Your task to perform on an android device: add a contact in the contacts app Image 0: 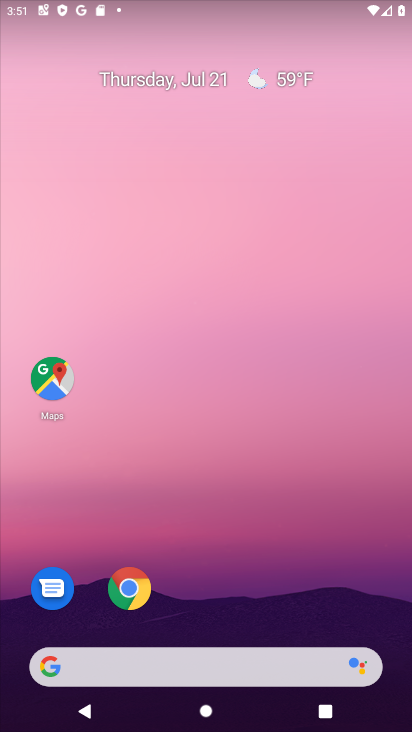
Step 0: drag from (238, 724) to (238, 256)
Your task to perform on an android device: add a contact in the contacts app Image 1: 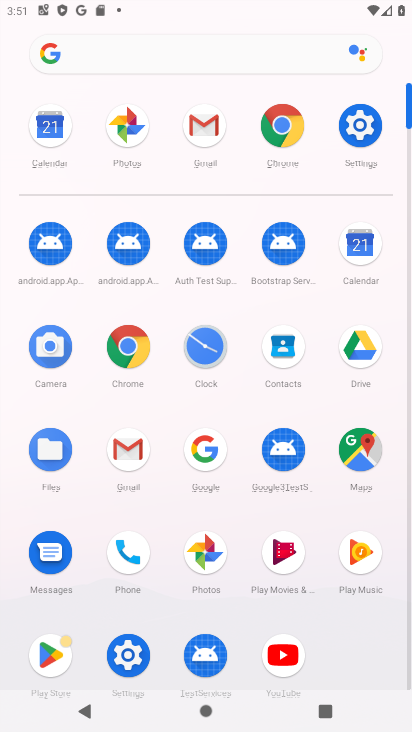
Step 1: click (285, 351)
Your task to perform on an android device: add a contact in the contacts app Image 2: 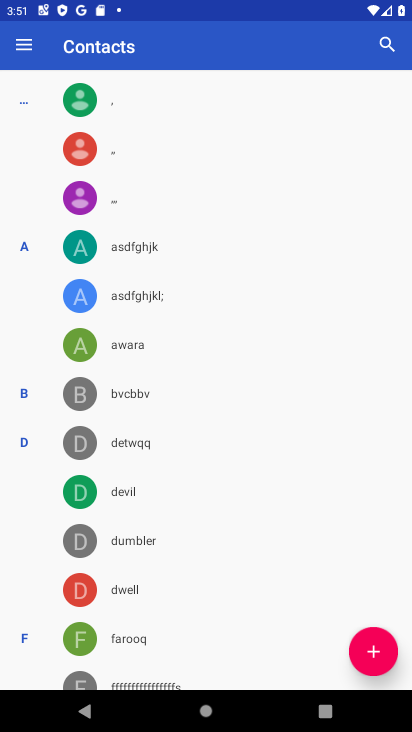
Step 2: click (368, 652)
Your task to perform on an android device: add a contact in the contacts app Image 3: 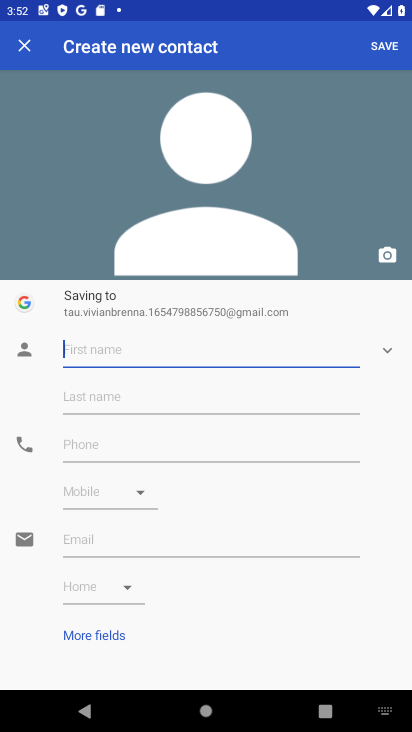
Step 3: type "police"
Your task to perform on an android device: add a contact in the contacts app Image 4: 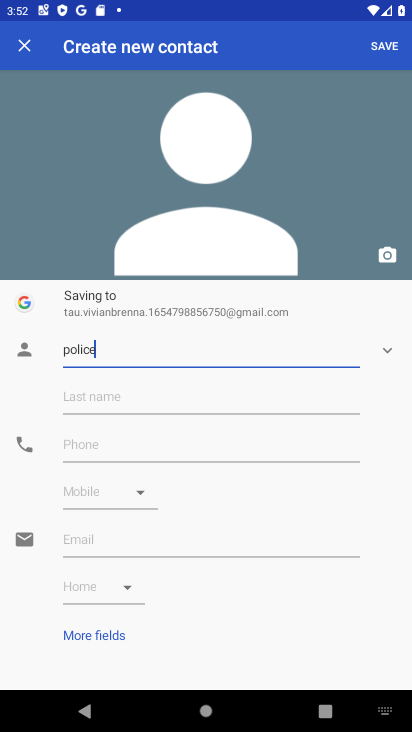
Step 4: type ""
Your task to perform on an android device: add a contact in the contacts app Image 5: 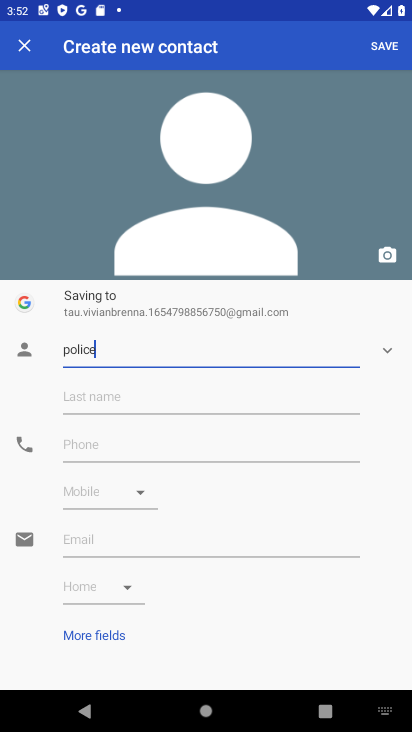
Step 5: click (94, 441)
Your task to perform on an android device: add a contact in the contacts app Image 6: 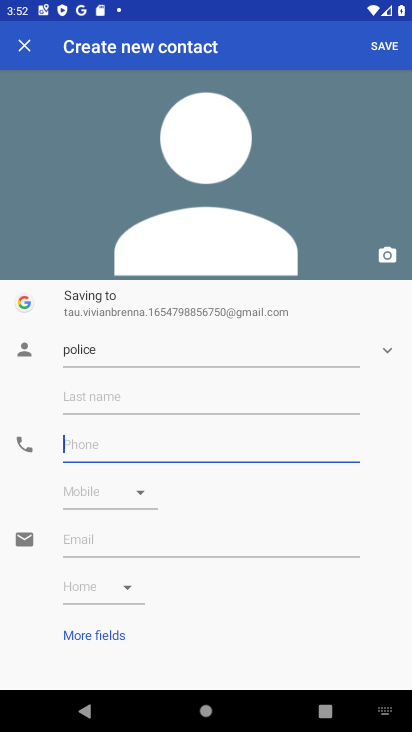
Step 6: type "343"
Your task to perform on an android device: add a contact in the contacts app Image 7: 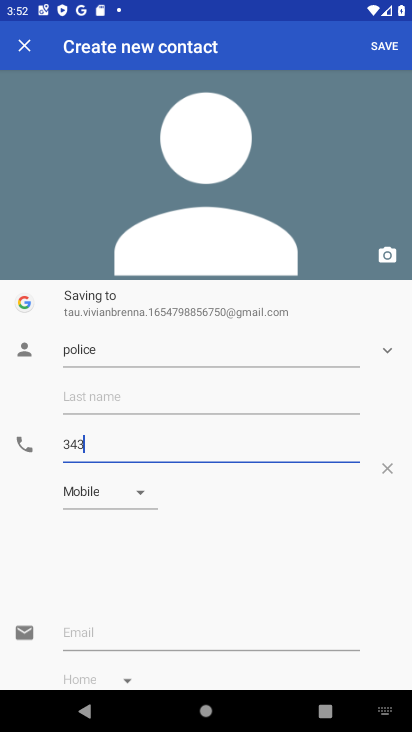
Step 7: type ""
Your task to perform on an android device: add a contact in the contacts app Image 8: 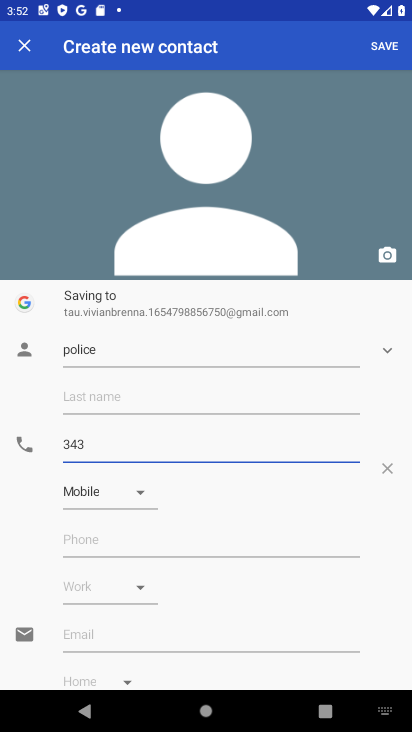
Step 8: click (385, 44)
Your task to perform on an android device: add a contact in the contacts app Image 9: 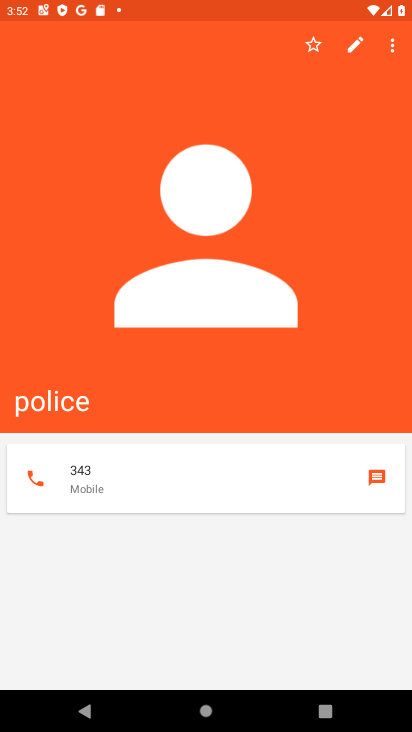
Step 9: task complete